Your task to perform on an android device: turn on airplane mode Image 0: 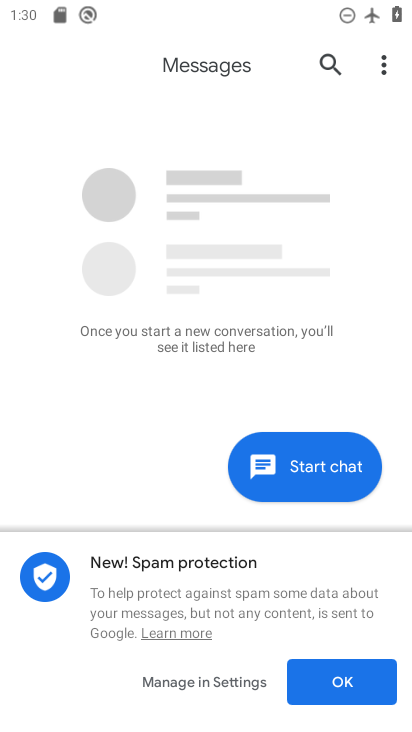
Step 0: press home button
Your task to perform on an android device: turn on airplane mode Image 1: 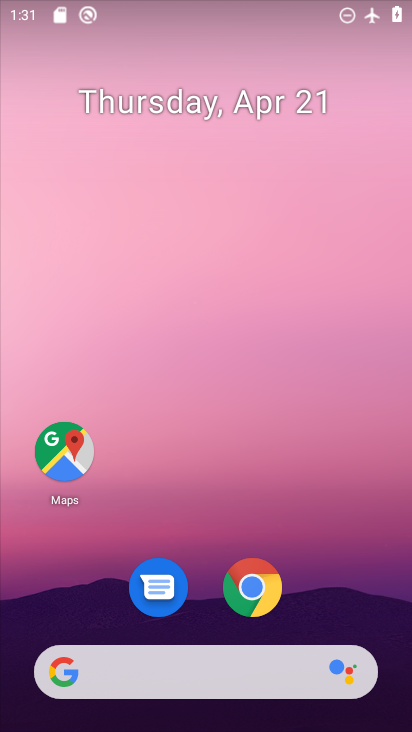
Step 1: drag from (322, 556) to (300, 95)
Your task to perform on an android device: turn on airplane mode Image 2: 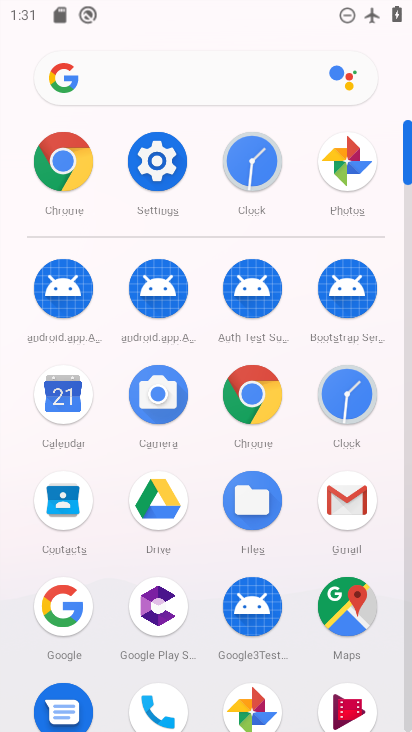
Step 2: click (163, 156)
Your task to perform on an android device: turn on airplane mode Image 3: 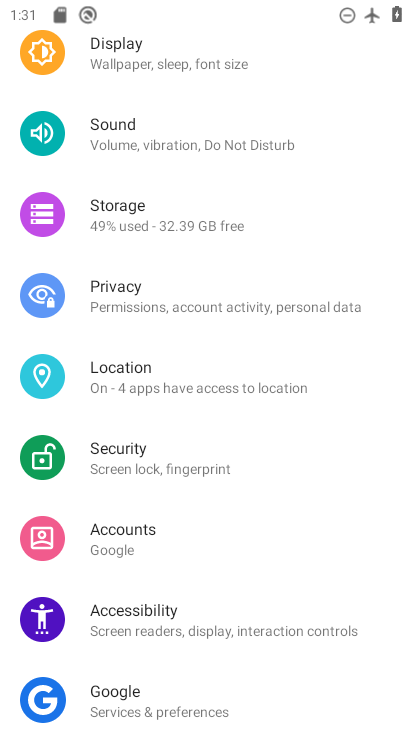
Step 3: drag from (166, 227) to (182, 648)
Your task to perform on an android device: turn on airplane mode Image 4: 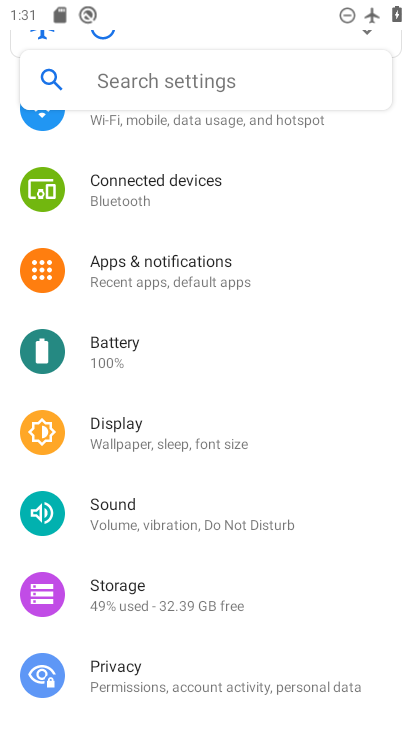
Step 4: drag from (196, 200) to (189, 602)
Your task to perform on an android device: turn on airplane mode Image 5: 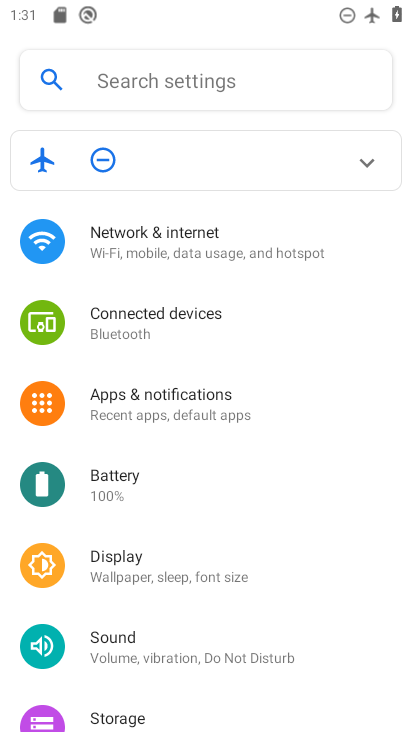
Step 5: click (156, 227)
Your task to perform on an android device: turn on airplane mode Image 6: 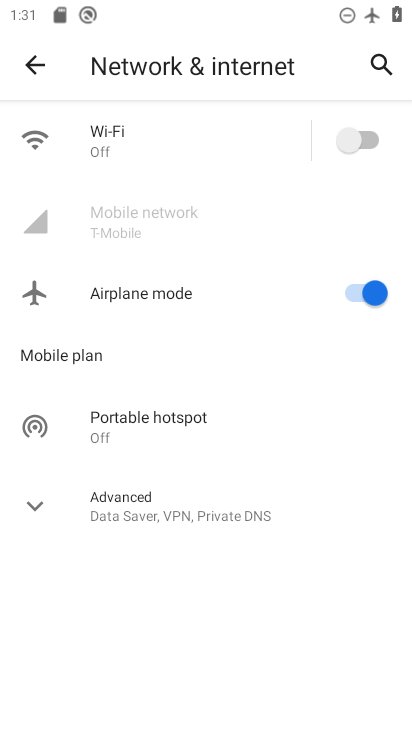
Step 6: task complete